Your task to perform on an android device: Go to Yahoo.com Image 0: 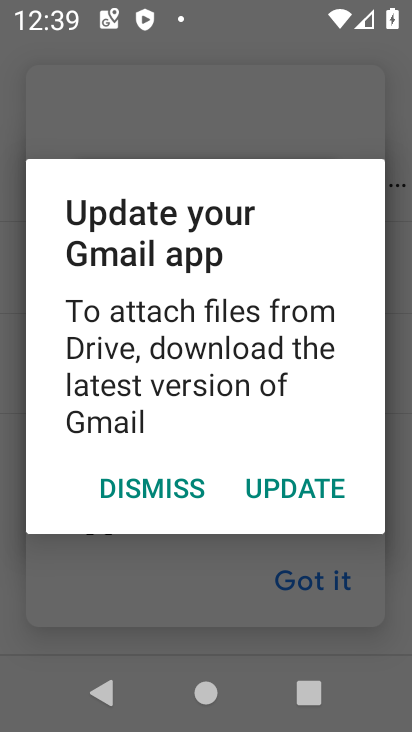
Step 0: press home button
Your task to perform on an android device: Go to Yahoo.com Image 1: 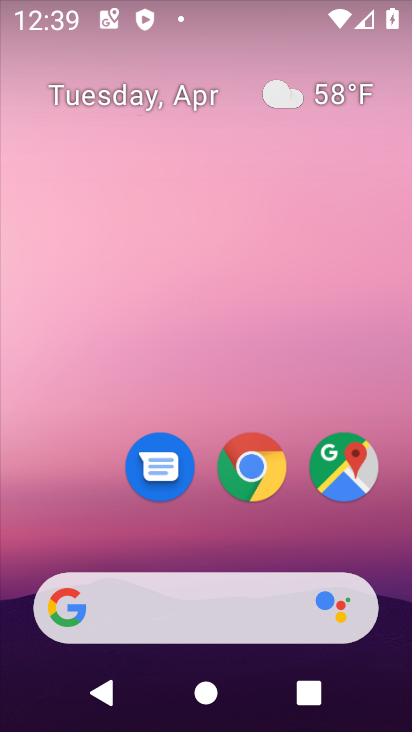
Step 1: click (251, 467)
Your task to perform on an android device: Go to Yahoo.com Image 2: 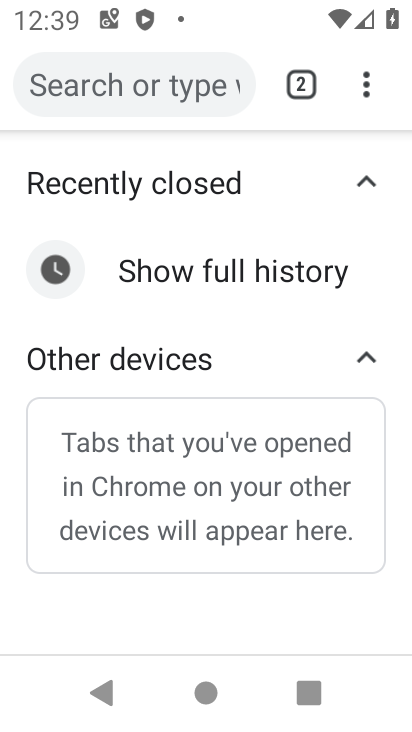
Step 2: click (373, 73)
Your task to perform on an android device: Go to Yahoo.com Image 3: 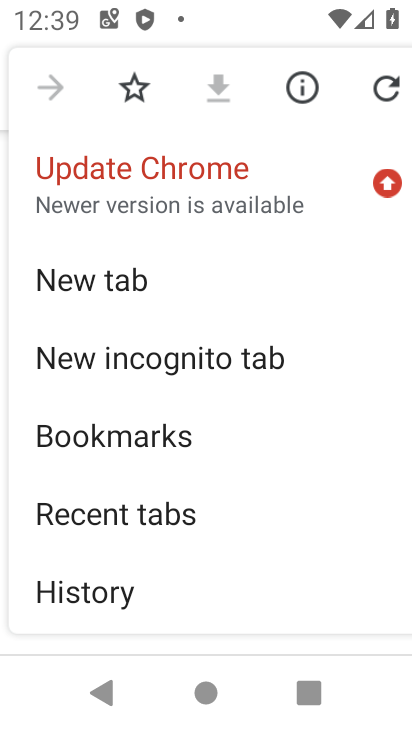
Step 3: click (121, 282)
Your task to perform on an android device: Go to Yahoo.com Image 4: 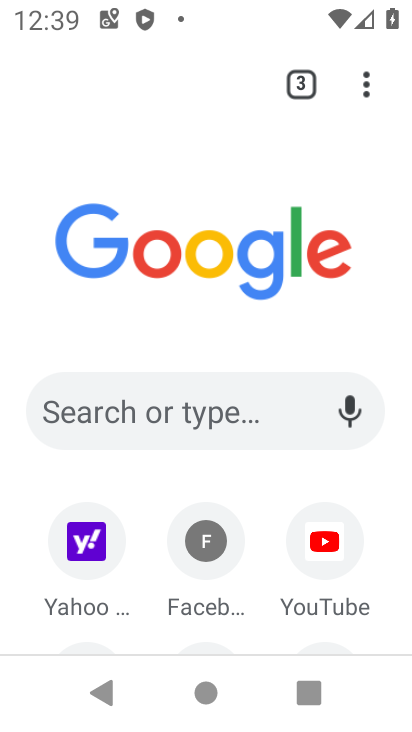
Step 4: click (59, 557)
Your task to perform on an android device: Go to Yahoo.com Image 5: 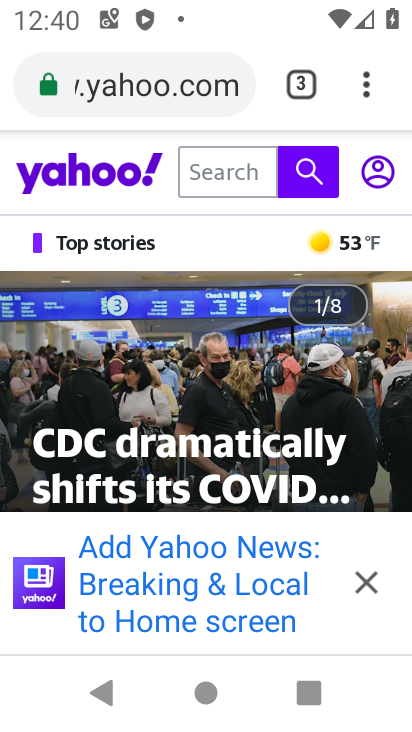
Step 5: task complete